Your task to perform on an android device: Open Google Chrome and click the shortcut for Amazon.com Image 0: 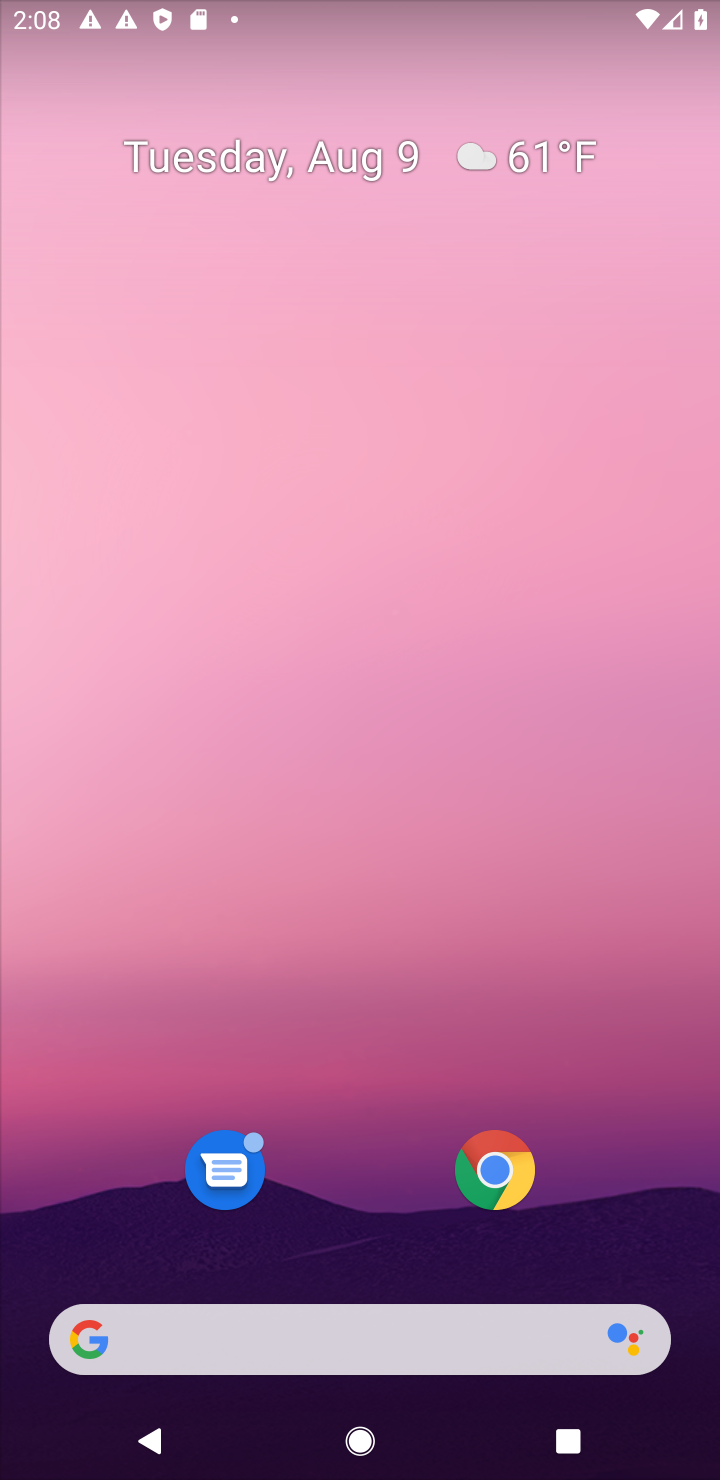
Step 0: click (498, 1170)
Your task to perform on an android device: Open Google Chrome and click the shortcut for Amazon.com Image 1: 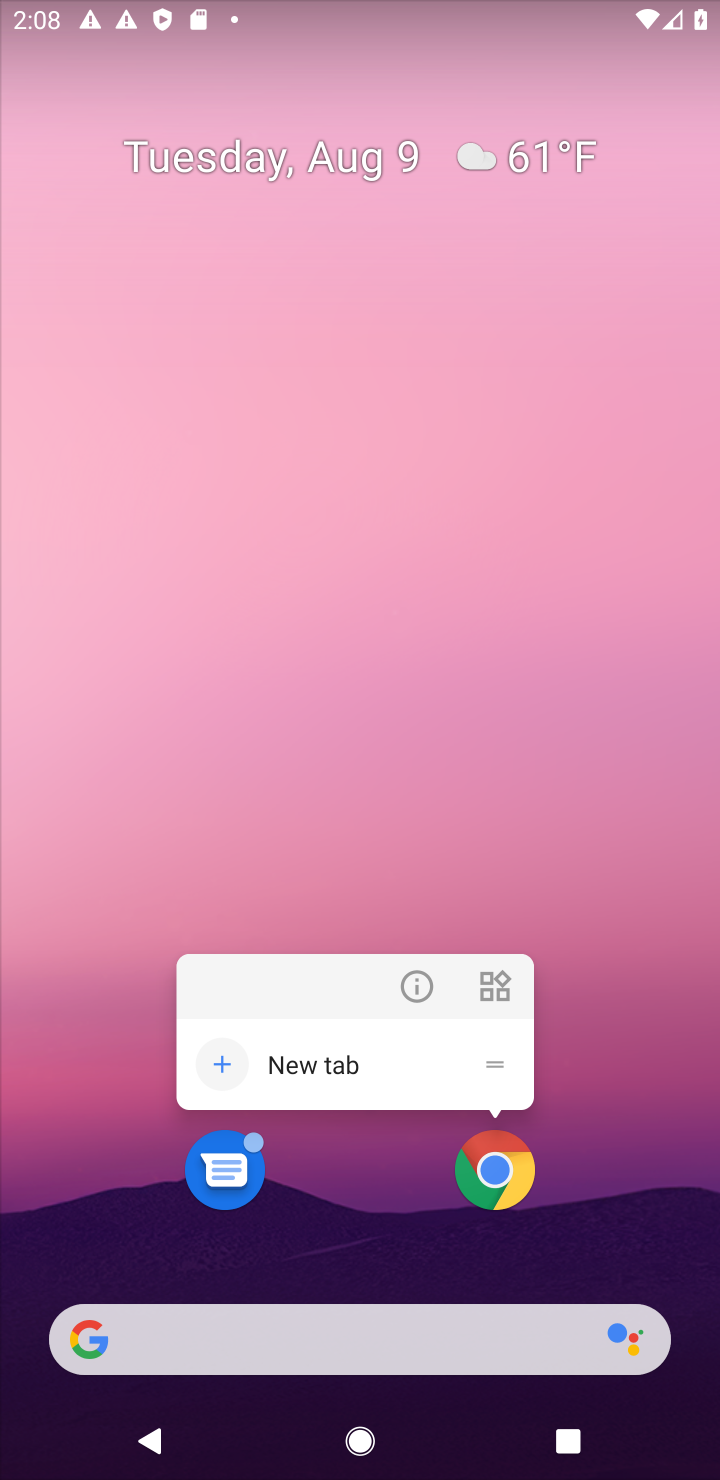
Step 1: click (500, 1160)
Your task to perform on an android device: Open Google Chrome and click the shortcut for Amazon.com Image 2: 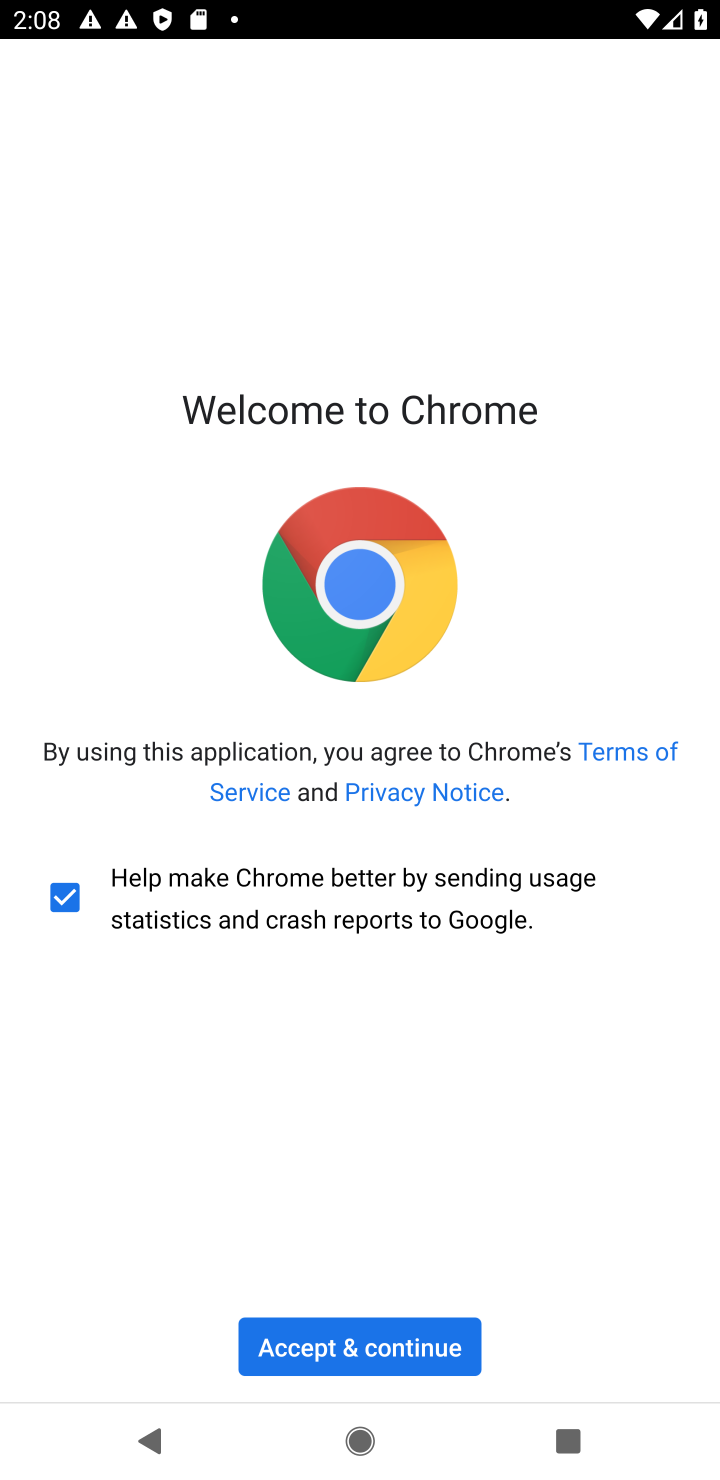
Step 2: click (388, 1342)
Your task to perform on an android device: Open Google Chrome and click the shortcut for Amazon.com Image 3: 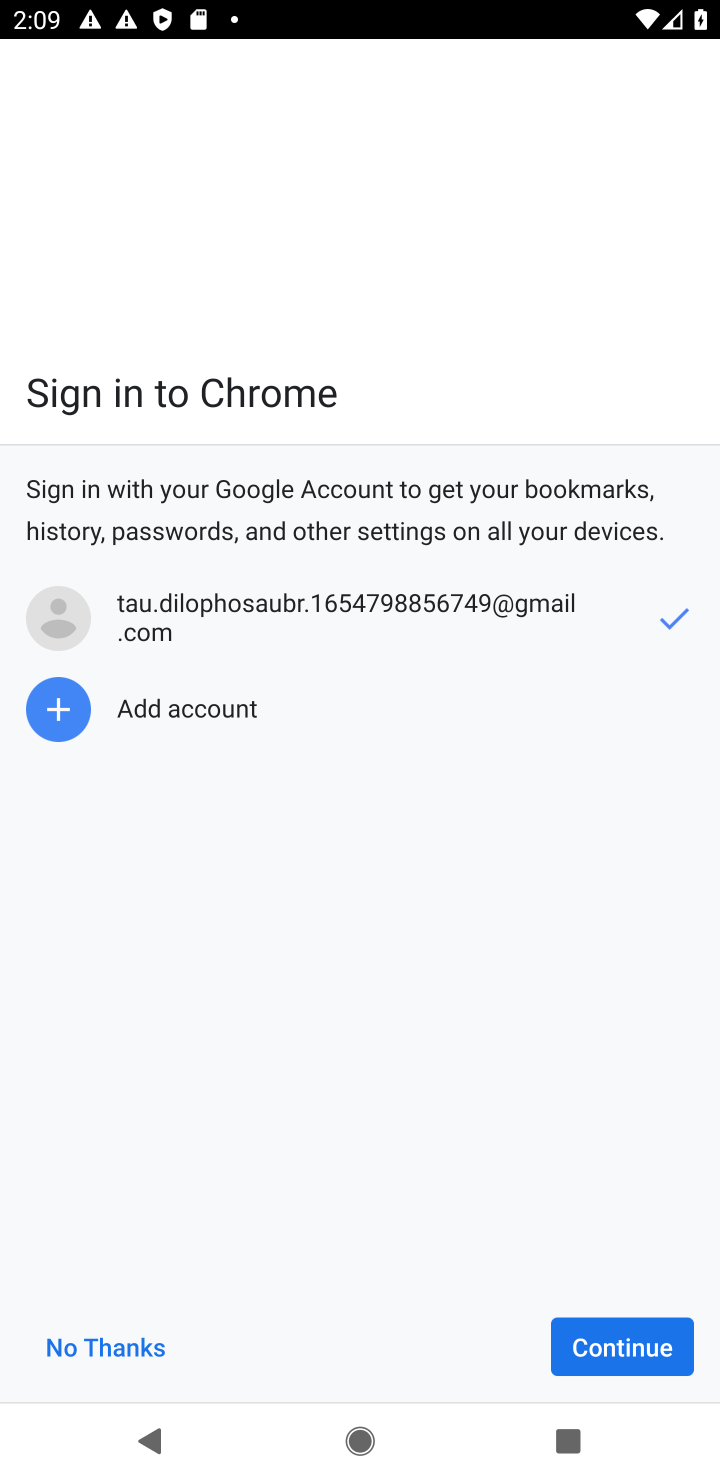
Step 3: click (614, 1353)
Your task to perform on an android device: Open Google Chrome and click the shortcut for Amazon.com Image 4: 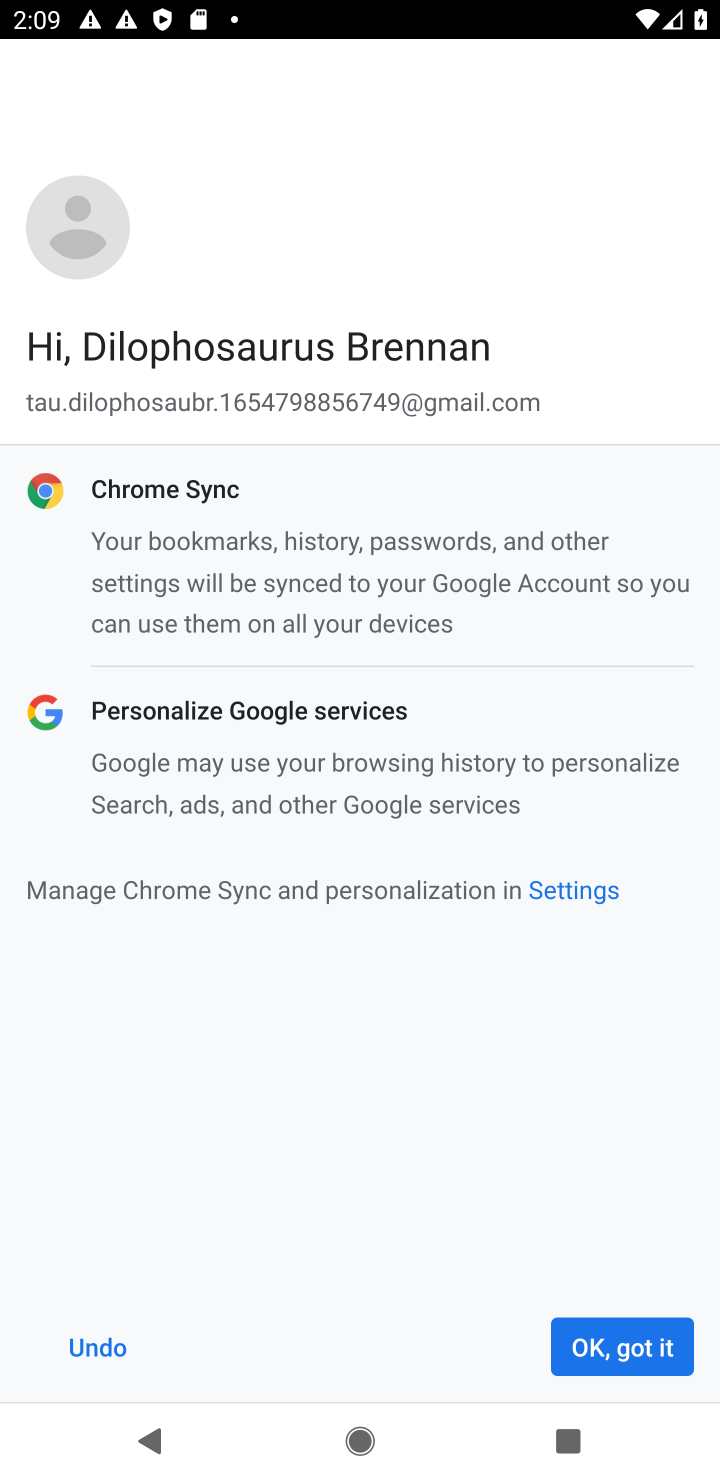
Step 4: click (601, 1347)
Your task to perform on an android device: Open Google Chrome and click the shortcut for Amazon.com Image 5: 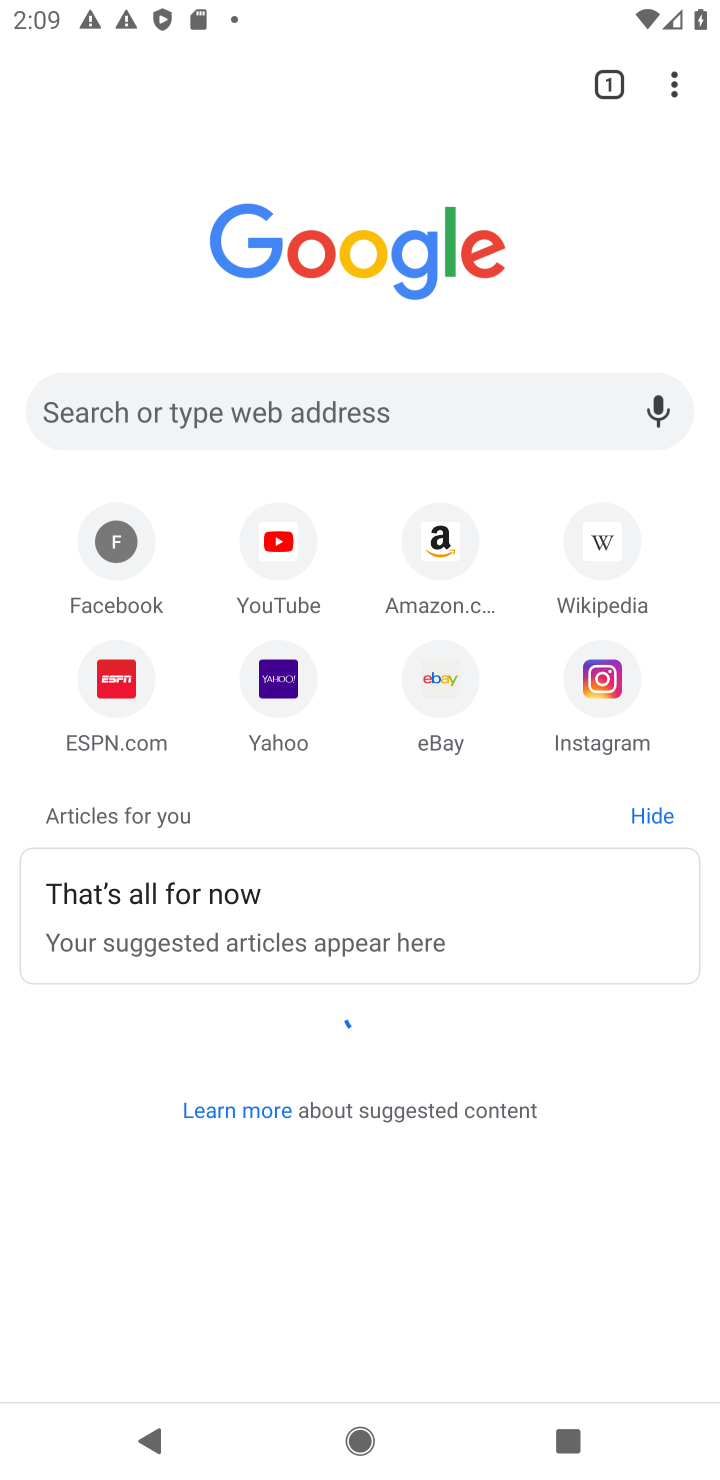
Step 5: click (423, 569)
Your task to perform on an android device: Open Google Chrome and click the shortcut for Amazon.com Image 6: 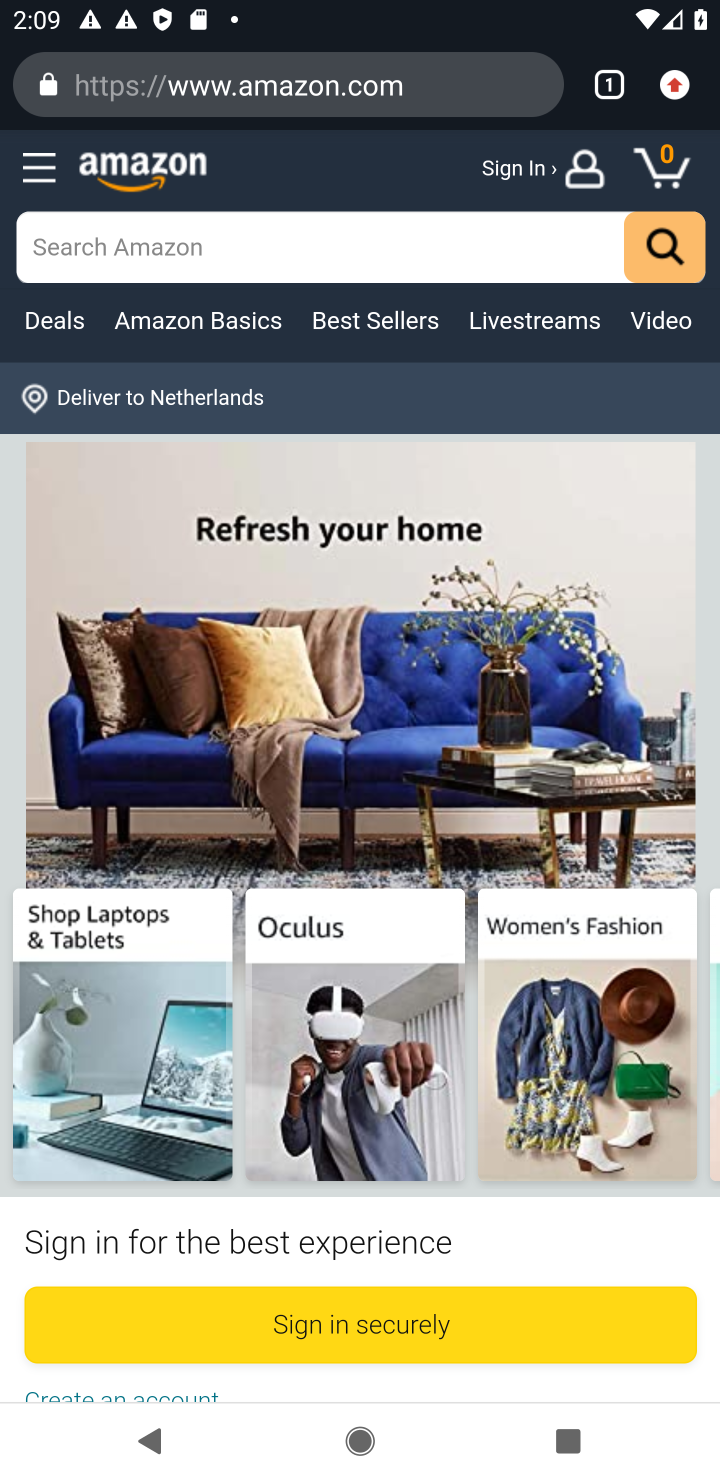
Step 6: task complete